Your task to perform on an android device: Go to location settings Image 0: 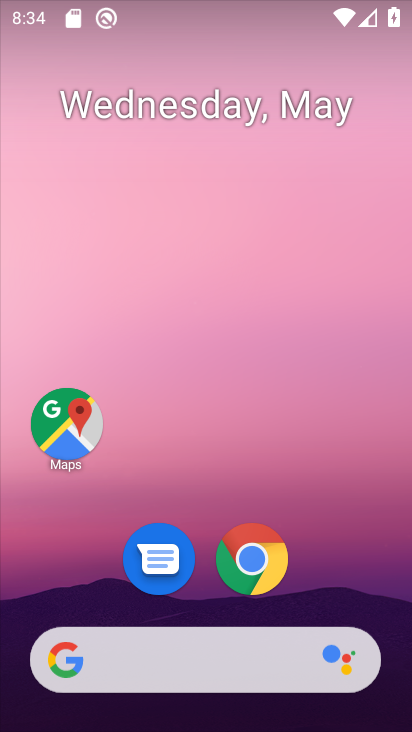
Step 0: drag from (104, 564) to (209, 77)
Your task to perform on an android device: Go to location settings Image 1: 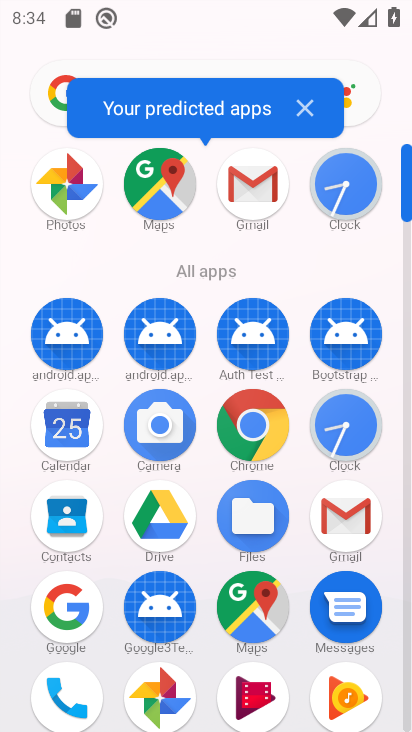
Step 1: drag from (229, 615) to (296, 282)
Your task to perform on an android device: Go to location settings Image 2: 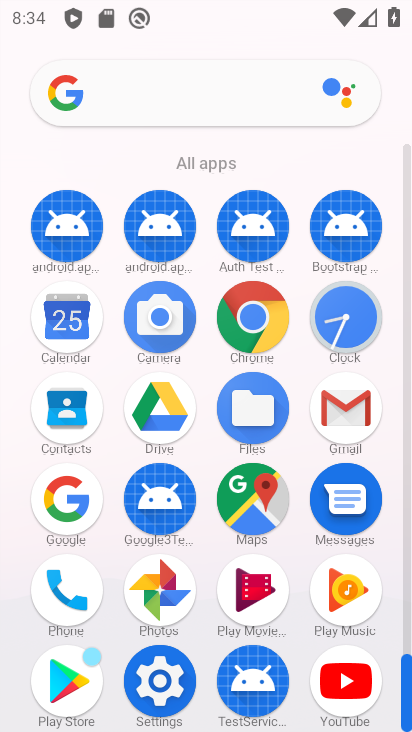
Step 2: click (155, 683)
Your task to perform on an android device: Go to location settings Image 3: 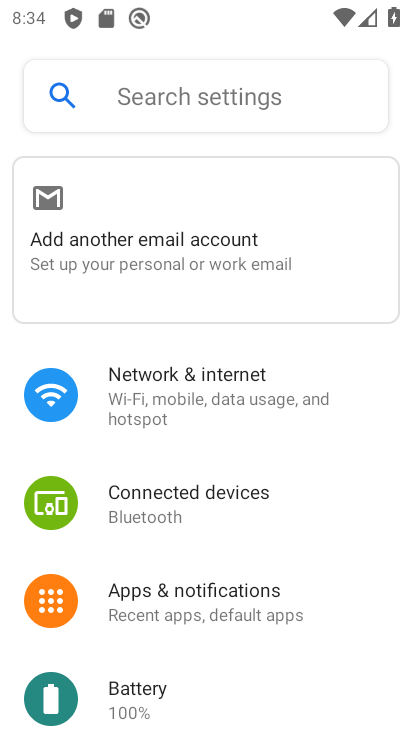
Step 3: drag from (149, 658) to (241, 283)
Your task to perform on an android device: Go to location settings Image 4: 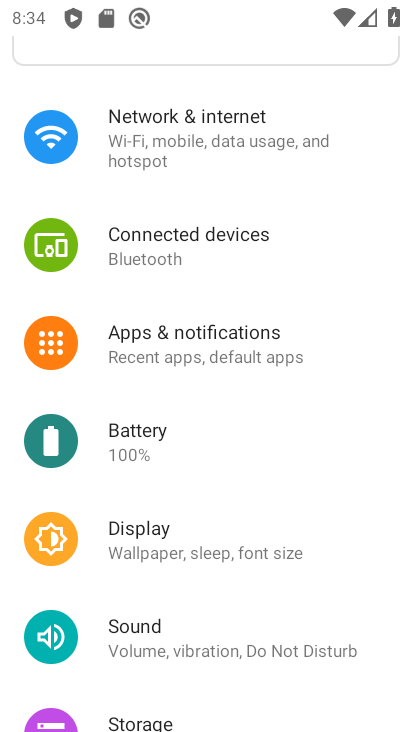
Step 4: drag from (194, 633) to (256, 250)
Your task to perform on an android device: Go to location settings Image 5: 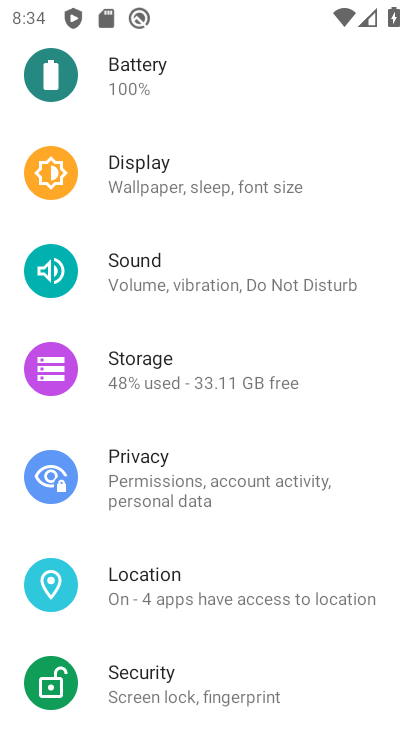
Step 5: click (112, 588)
Your task to perform on an android device: Go to location settings Image 6: 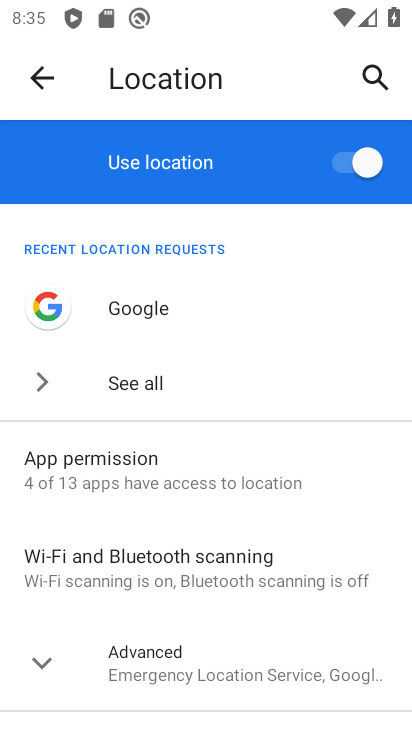
Step 6: task complete